Your task to perform on an android device: Search for "razer thresher" on bestbuy.com, select the first entry, add it to the cart, then select checkout. Image 0: 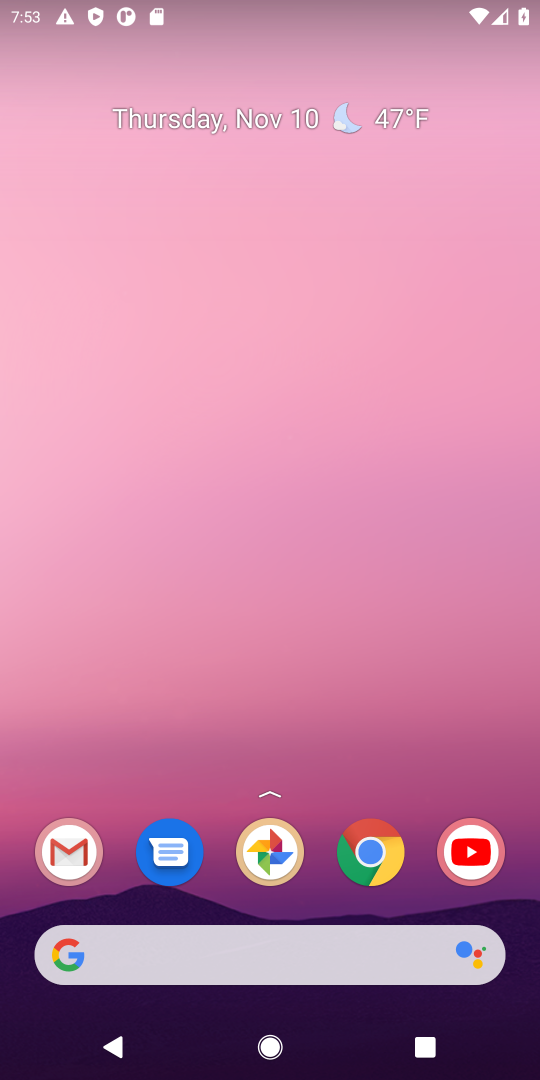
Step 0: click (386, 855)
Your task to perform on an android device: Search for "razer thresher" on bestbuy.com, select the first entry, add it to the cart, then select checkout. Image 1: 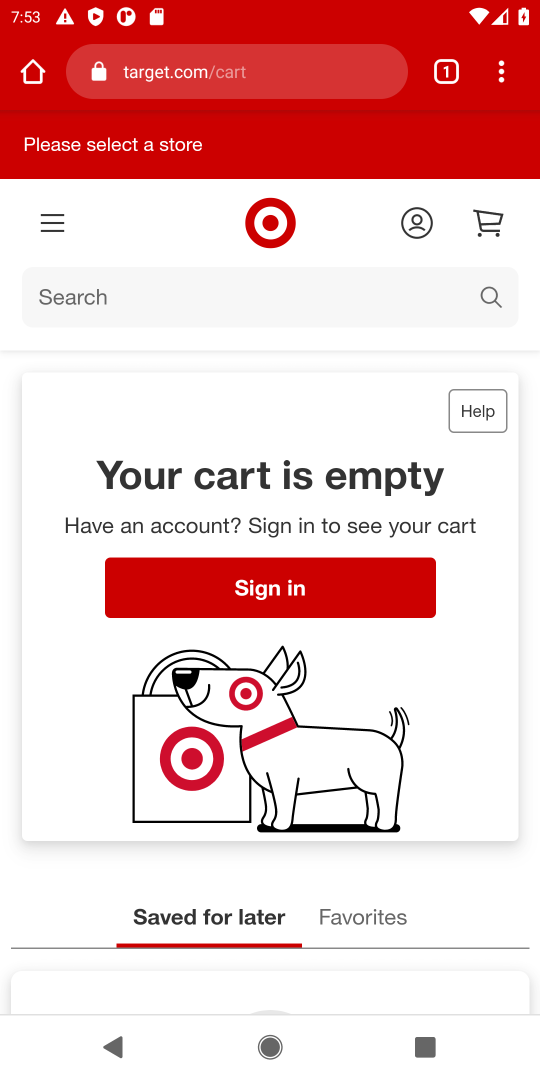
Step 1: click (316, 75)
Your task to perform on an android device: Search for "razer thresher" on bestbuy.com, select the first entry, add it to the cart, then select checkout. Image 2: 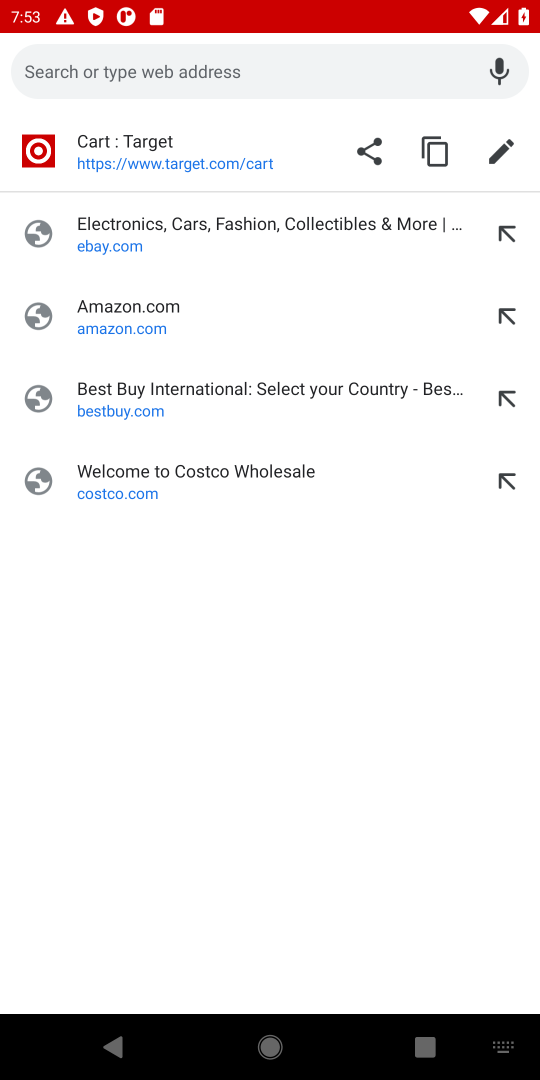
Step 2: click (114, 403)
Your task to perform on an android device: Search for "razer thresher" on bestbuy.com, select the first entry, add it to the cart, then select checkout. Image 3: 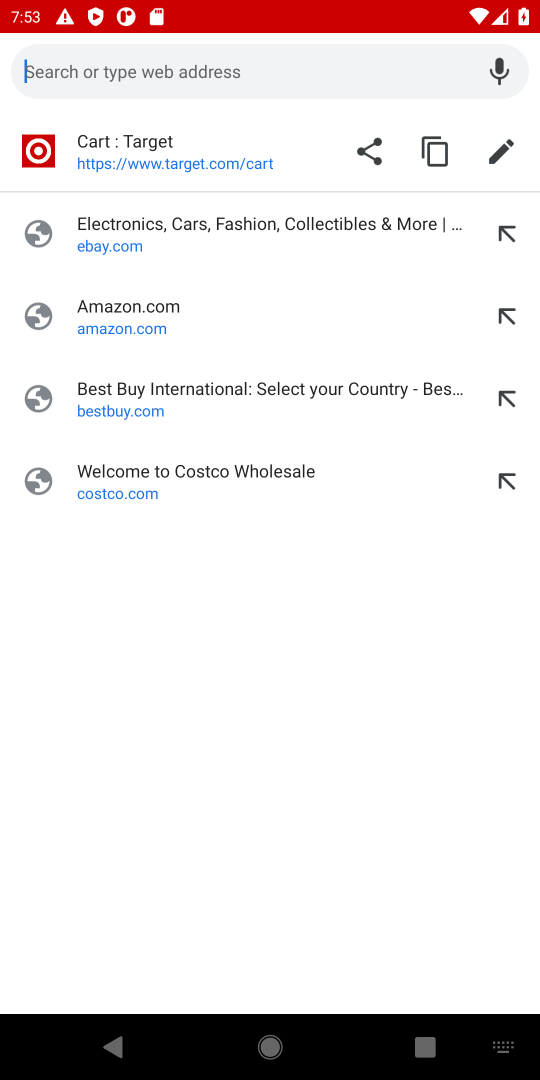
Step 3: click (123, 406)
Your task to perform on an android device: Search for "razer thresher" on bestbuy.com, select the first entry, add it to the cart, then select checkout. Image 4: 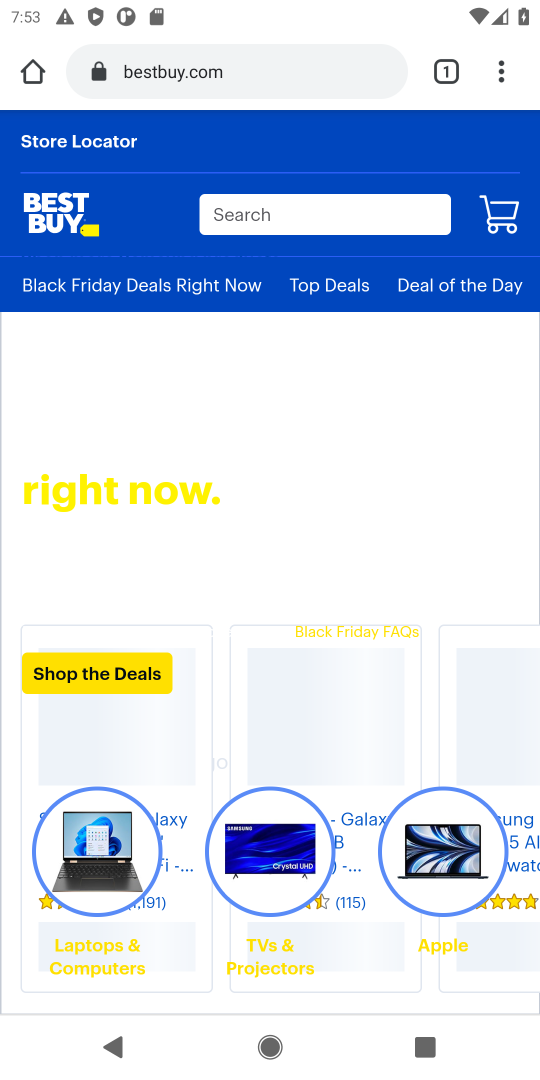
Step 4: click (286, 225)
Your task to perform on an android device: Search for "razer thresher" on bestbuy.com, select the first entry, add it to the cart, then select checkout. Image 5: 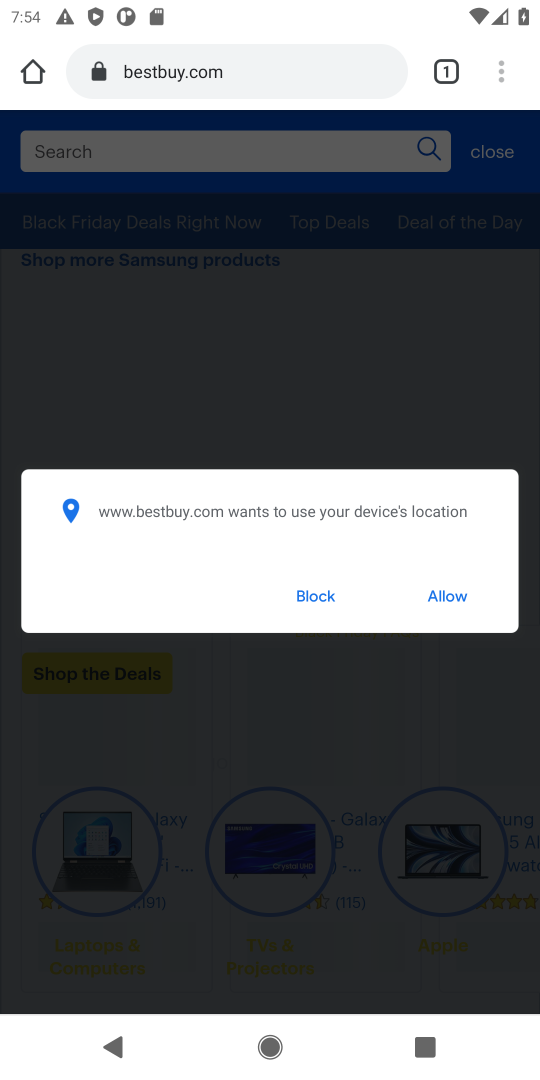
Step 5: click (466, 595)
Your task to perform on an android device: Search for "razer thresher" on bestbuy.com, select the first entry, add it to the cart, then select checkout. Image 6: 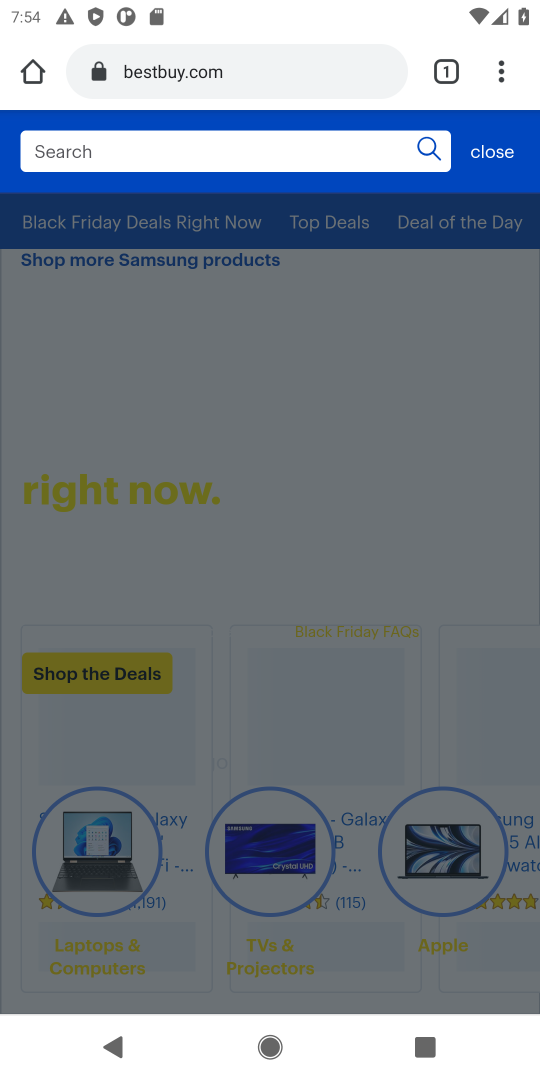
Step 6: type "razer thresher"
Your task to perform on an android device: Search for "razer thresher" on bestbuy.com, select the first entry, add it to the cart, then select checkout. Image 7: 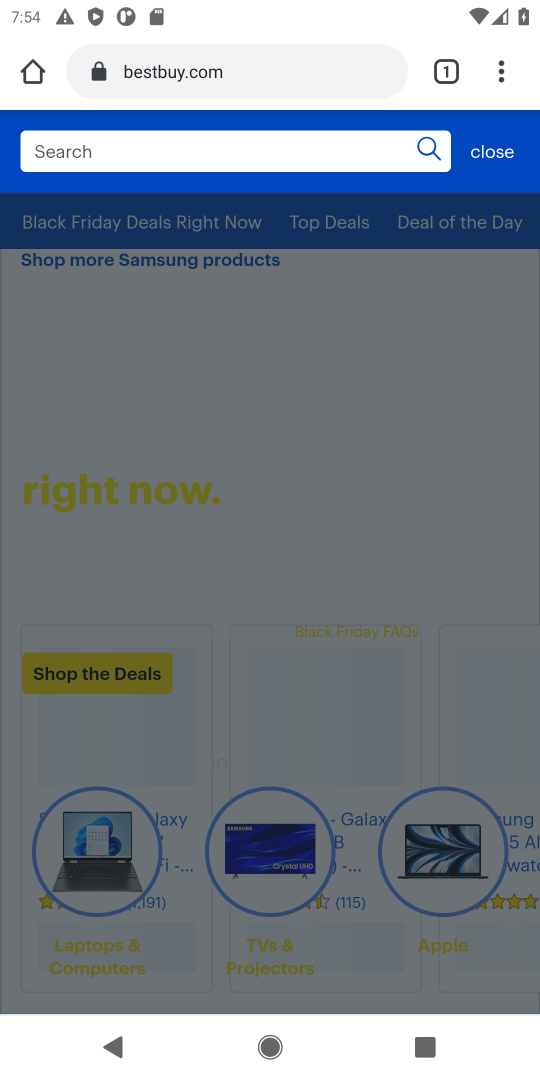
Step 7: press enter
Your task to perform on an android device: Search for "razer thresher" on bestbuy.com, select the first entry, add it to the cart, then select checkout. Image 8: 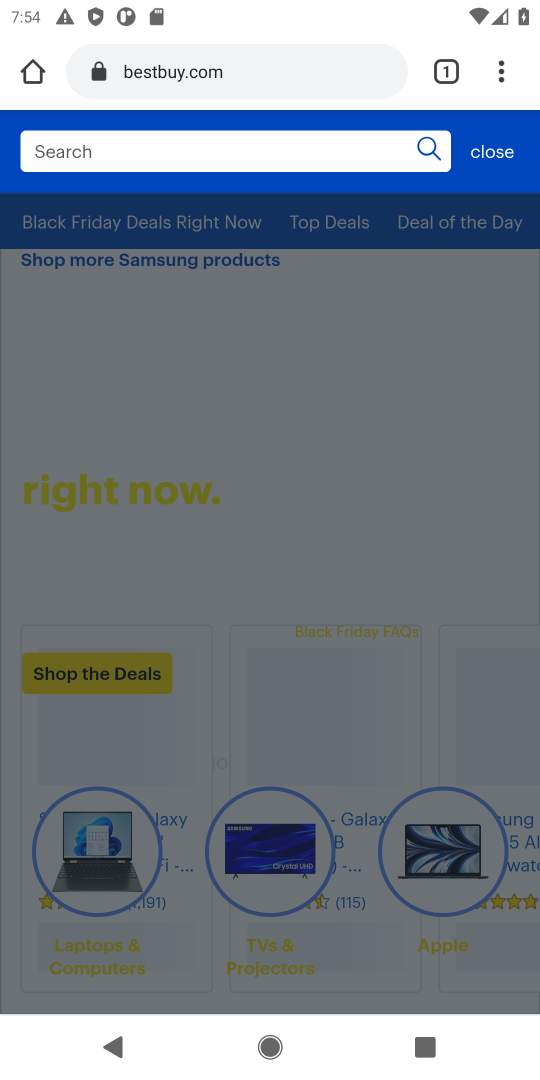
Step 8: click (344, 151)
Your task to perform on an android device: Search for "razer thresher" on bestbuy.com, select the first entry, add it to the cart, then select checkout. Image 9: 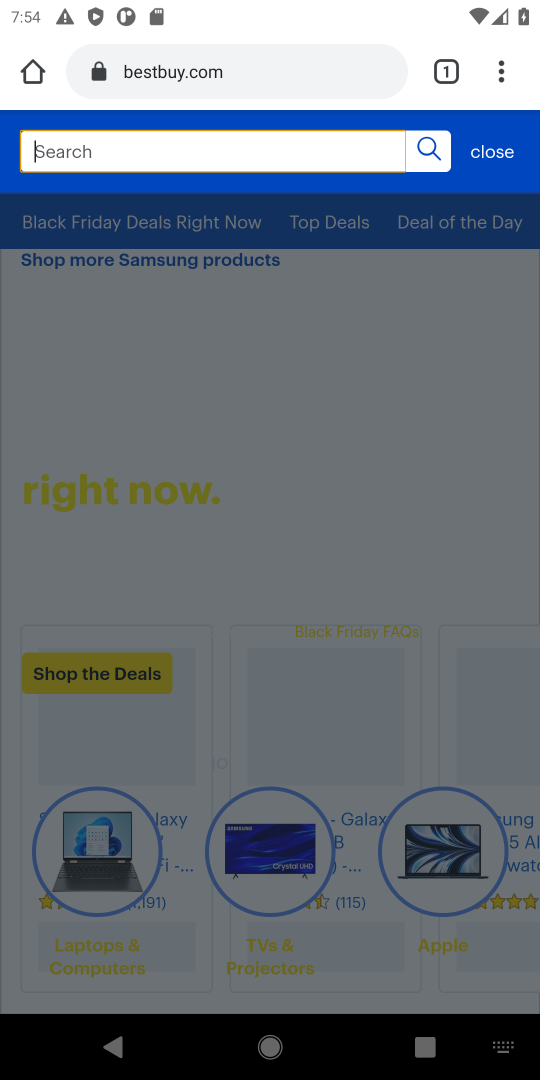
Step 9: type "razer thresher"
Your task to perform on an android device: Search for "razer thresher" on bestbuy.com, select the first entry, add it to the cart, then select checkout. Image 10: 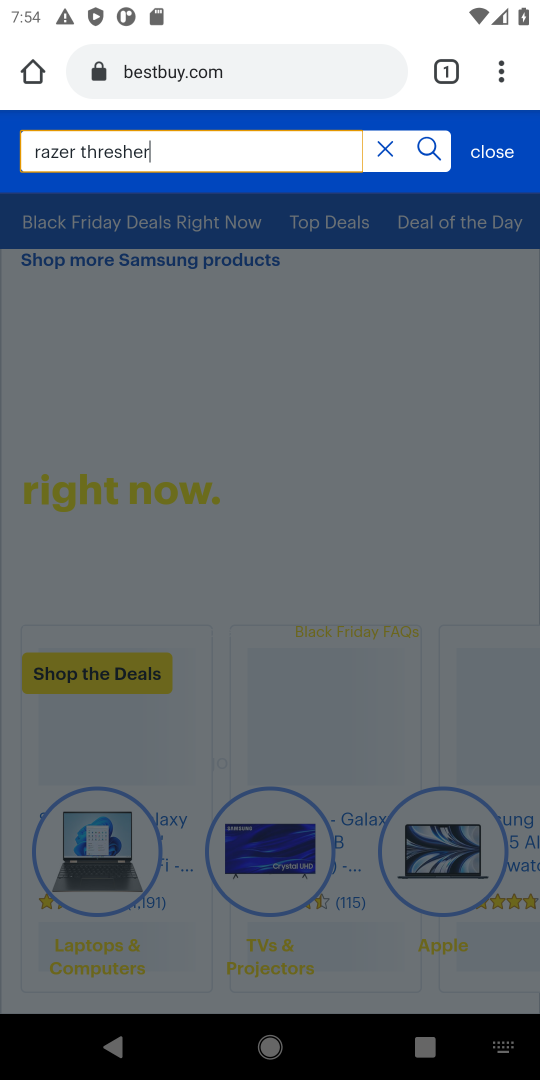
Step 10: press enter
Your task to perform on an android device: Search for "razer thresher" on bestbuy.com, select the first entry, add it to the cart, then select checkout. Image 11: 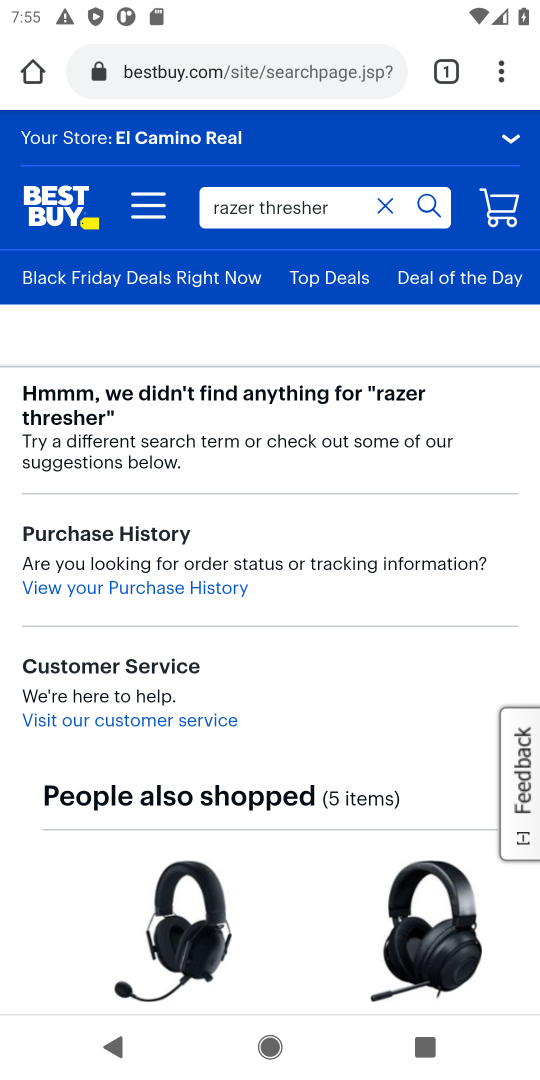
Step 11: task complete